Your task to perform on an android device: turn vacation reply on in the gmail app Image 0: 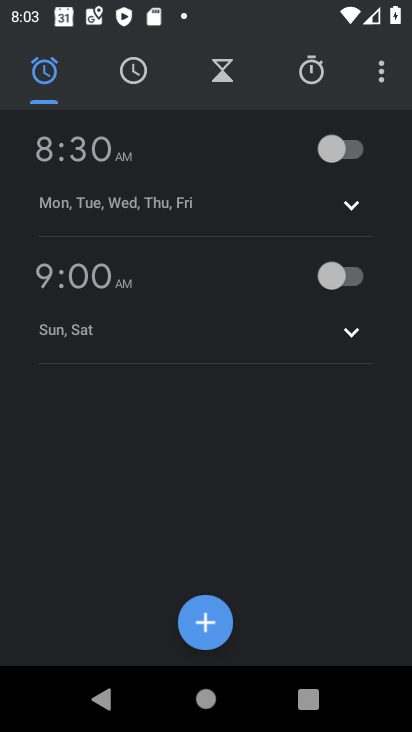
Step 0: press home button
Your task to perform on an android device: turn vacation reply on in the gmail app Image 1: 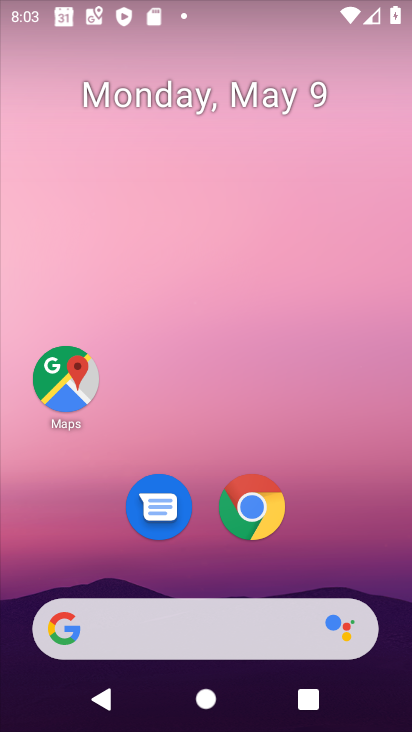
Step 1: drag from (252, 677) to (295, 226)
Your task to perform on an android device: turn vacation reply on in the gmail app Image 2: 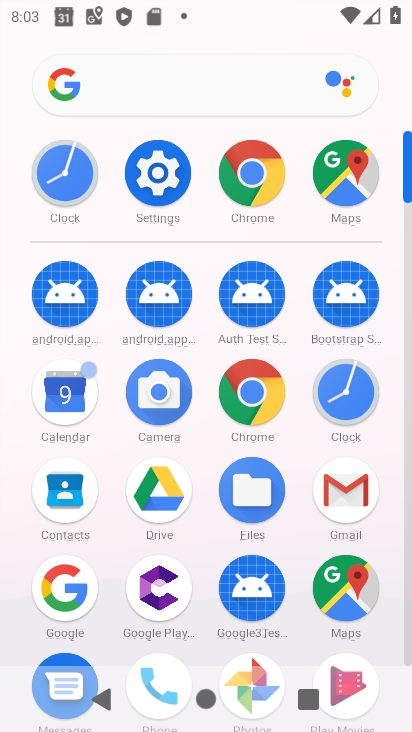
Step 2: click (366, 489)
Your task to perform on an android device: turn vacation reply on in the gmail app Image 3: 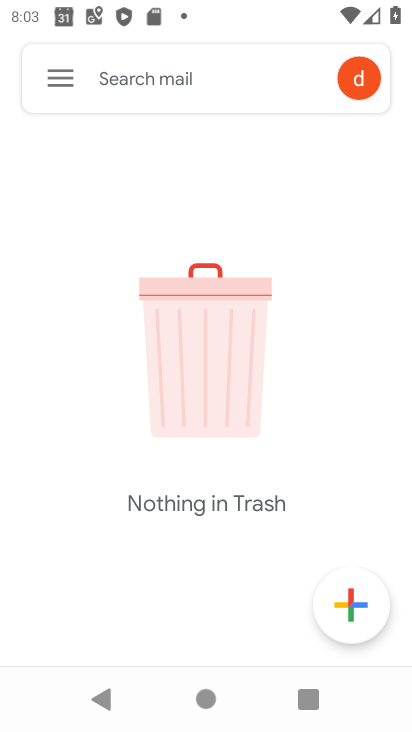
Step 3: click (68, 74)
Your task to perform on an android device: turn vacation reply on in the gmail app Image 4: 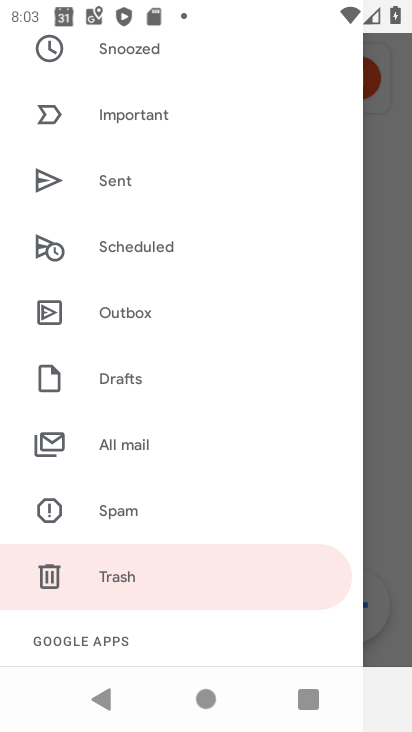
Step 4: drag from (110, 473) to (254, 130)
Your task to perform on an android device: turn vacation reply on in the gmail app Image 5: 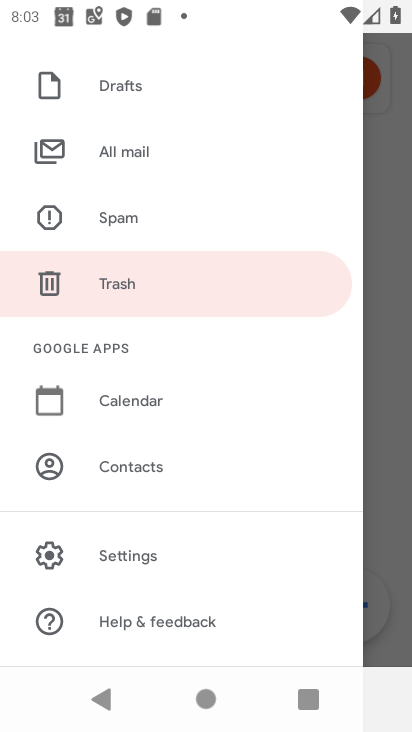
Step 5: click (136, 544)
Your task to perform on an android device: turn vacation reply on in the gmail app Image 6: 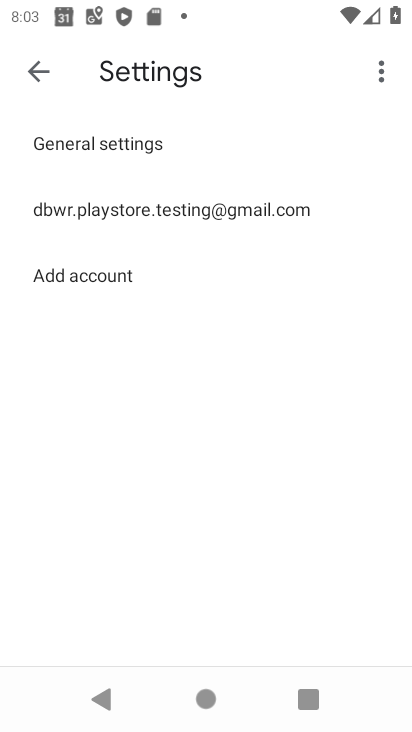
Step 6: click (211, 220)
Your task to perform on an android device: turn vacation reply on in the gmail app Image 7: 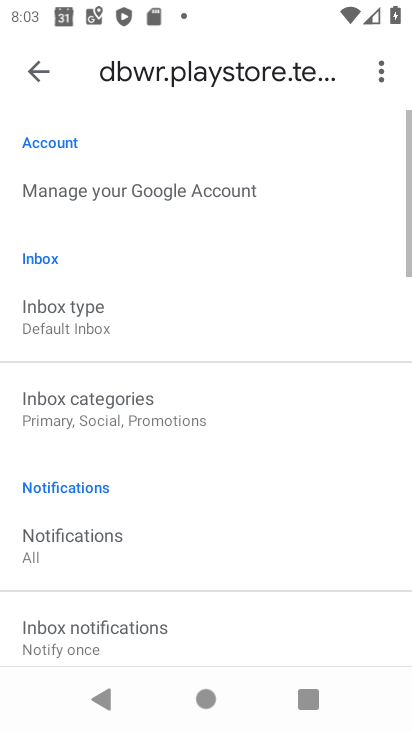
Step 7: drag from (219, 519) to (223, 249)
Your task to perform on an android device: turn vacation reply on in the gmail app Image 8: 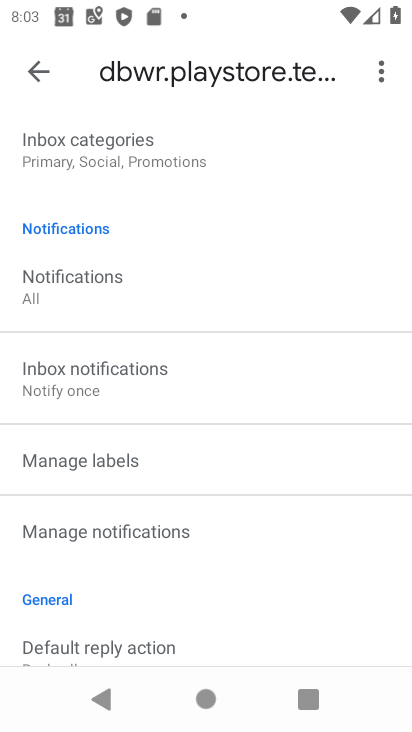
Step 8: drag from (176, 550) to (258, 311)
Your task to perform on an android device: turn vacation reply on in the gmail app Image 9: 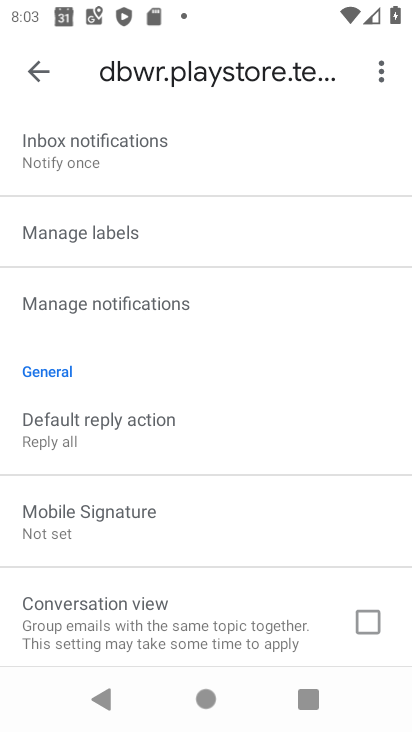
Step 9: drag from (167, 561) to (211, 286)
Your task to perform on an android device: turn vacation reply on in the gmail app Image 10: 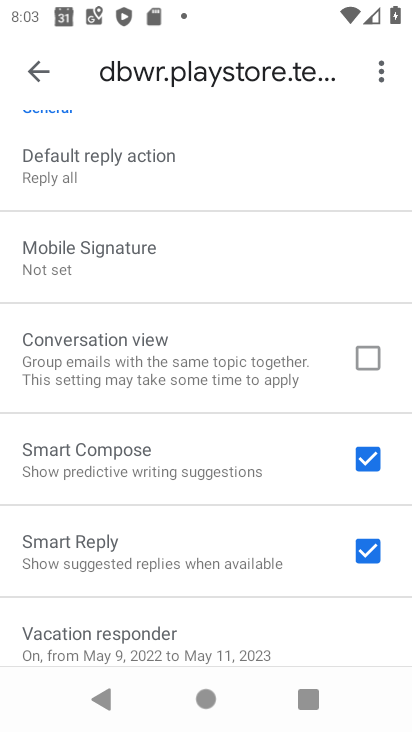
Step 10: drag from (146, 517) to (199, 429)
Your task to perform on an android device: turn vacation reply on in the gmail app Image 11: 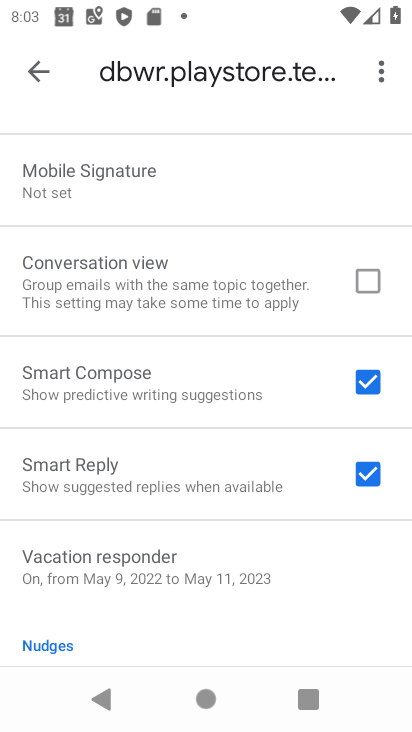
Step 11: click (120, 564)
Your task to perform on an android device: turn vacation reply on in the gmail app Image 12: 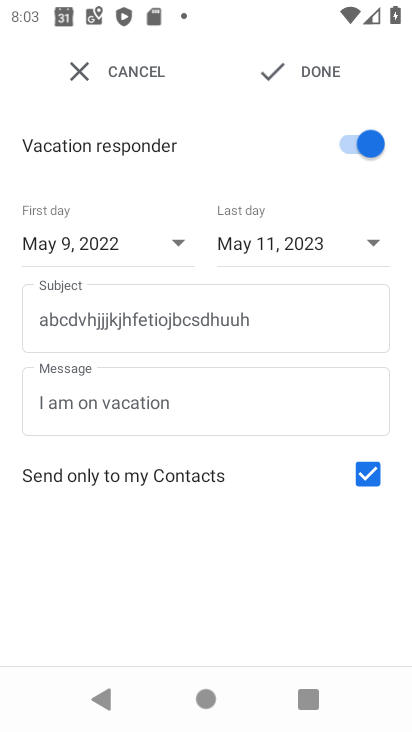
Step 12: task complete